Your task to perform on an android device: Open Google Chrome Image 0: 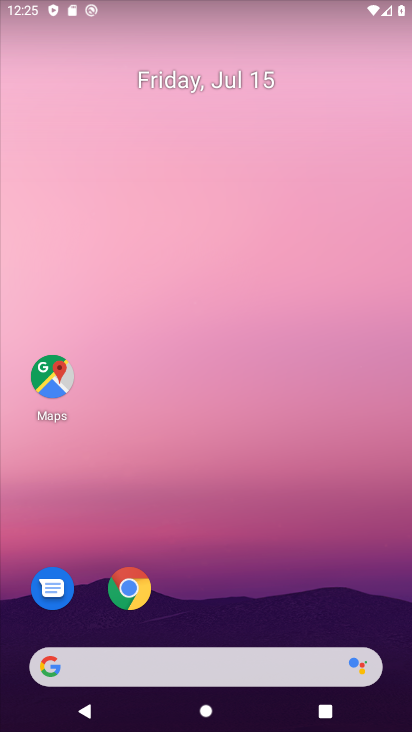
Step 0: click (121, 583)
Your task to perform on an android device: Open Google Chrome Image 1: 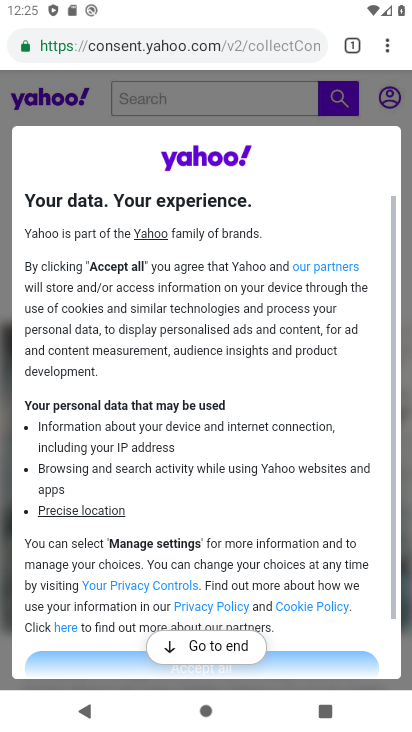
Step 1: task complete